Your task to perform on an android device: refresh tabs in the chrome app Image 0: 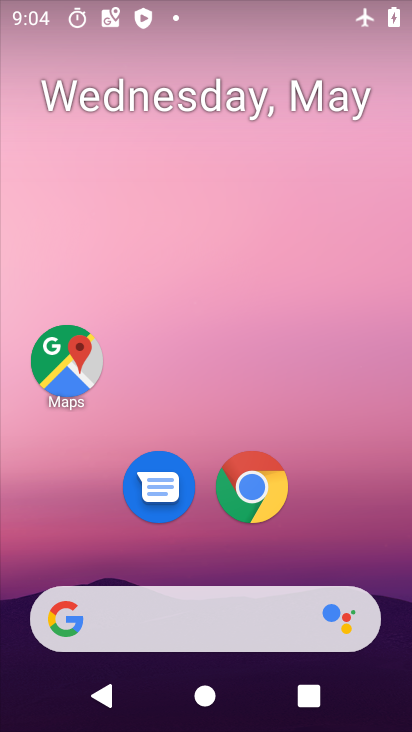
Step 0: click (255, 500)
Your task to perform on an android device: refresh tabs in the chrome app Image 1: 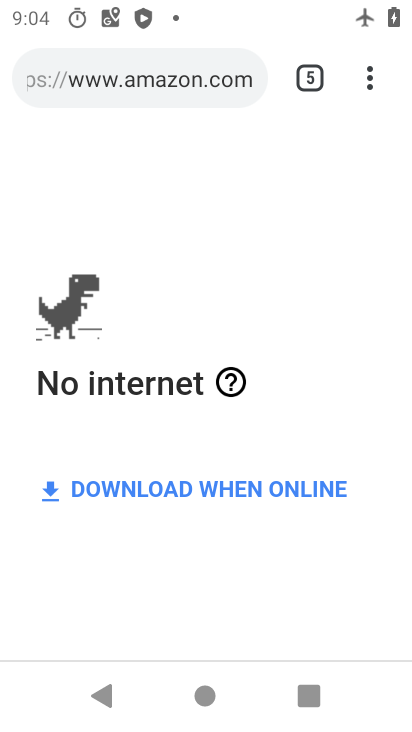
Step 1: click (370, 93)
Your task to perform on an android device: refresh tabs in the chrome app Image 2: 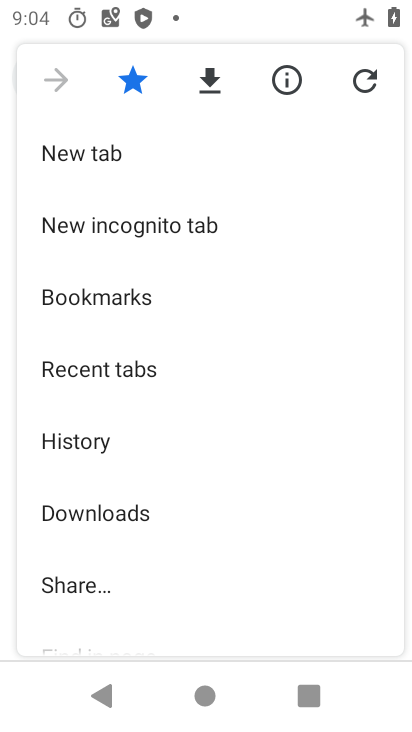
Step 2: click (354, 86)
Your task to perform on an android device: refresh tabs in the chrome app Image 3: 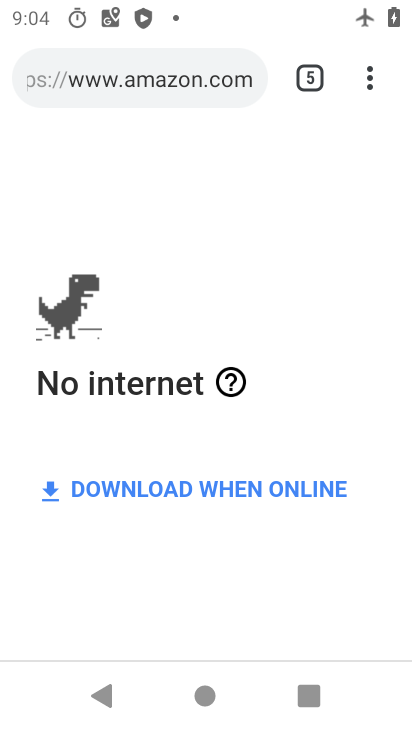
Step 3: task complete